Your task to perform on an android device: check storage Image 0: 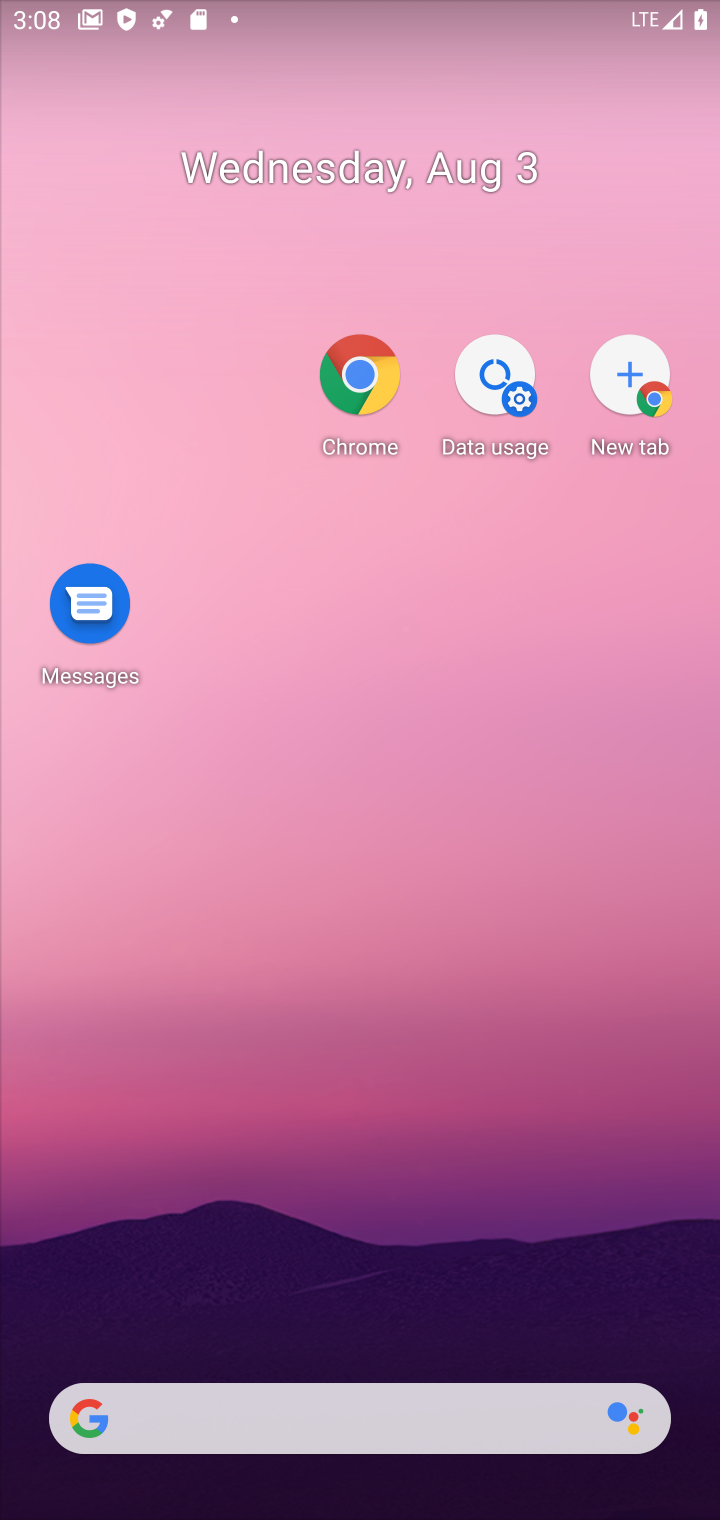
Step 0: click (80, 96)
Your task to perform on an android device: check storage Image 1: 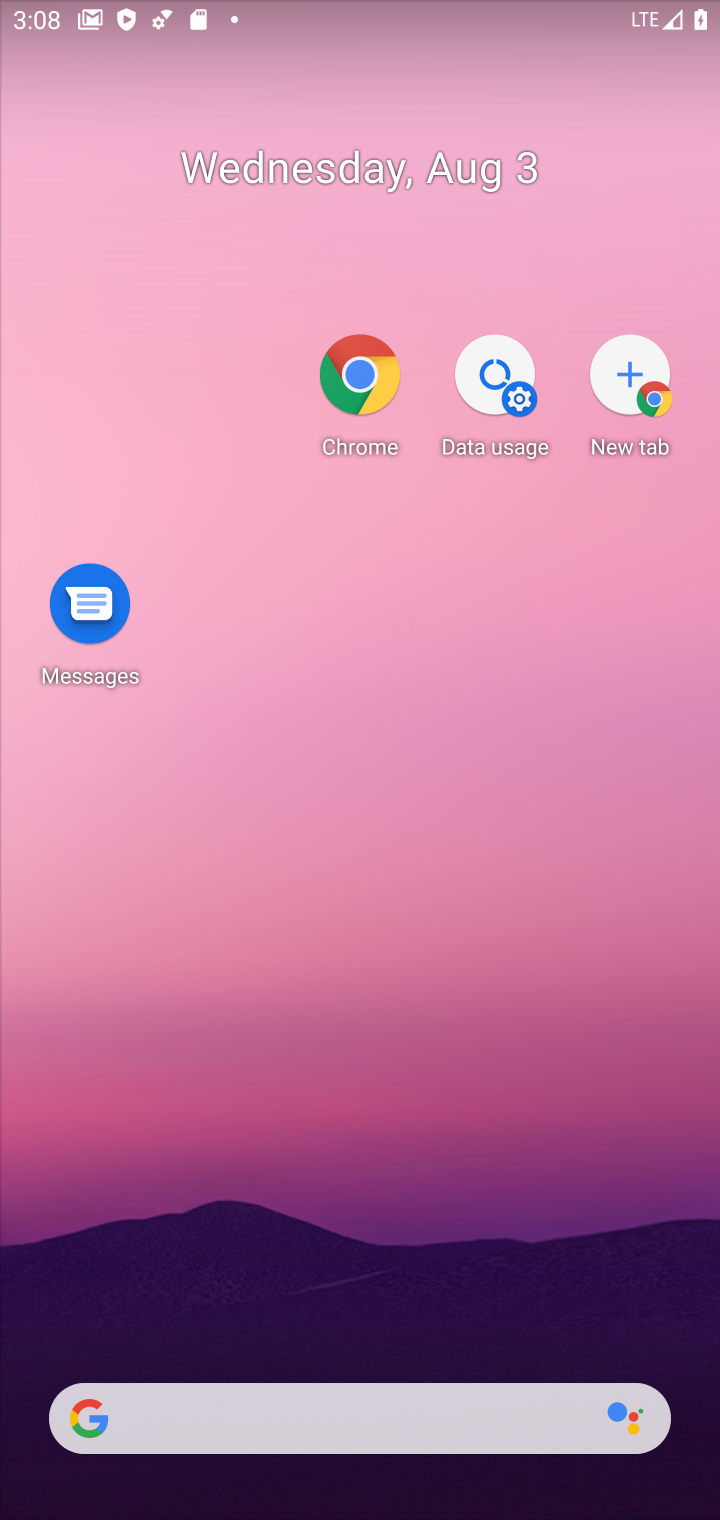
Step 1: click (52, 60)
Your task to perform on an android device: check storage Image 2: 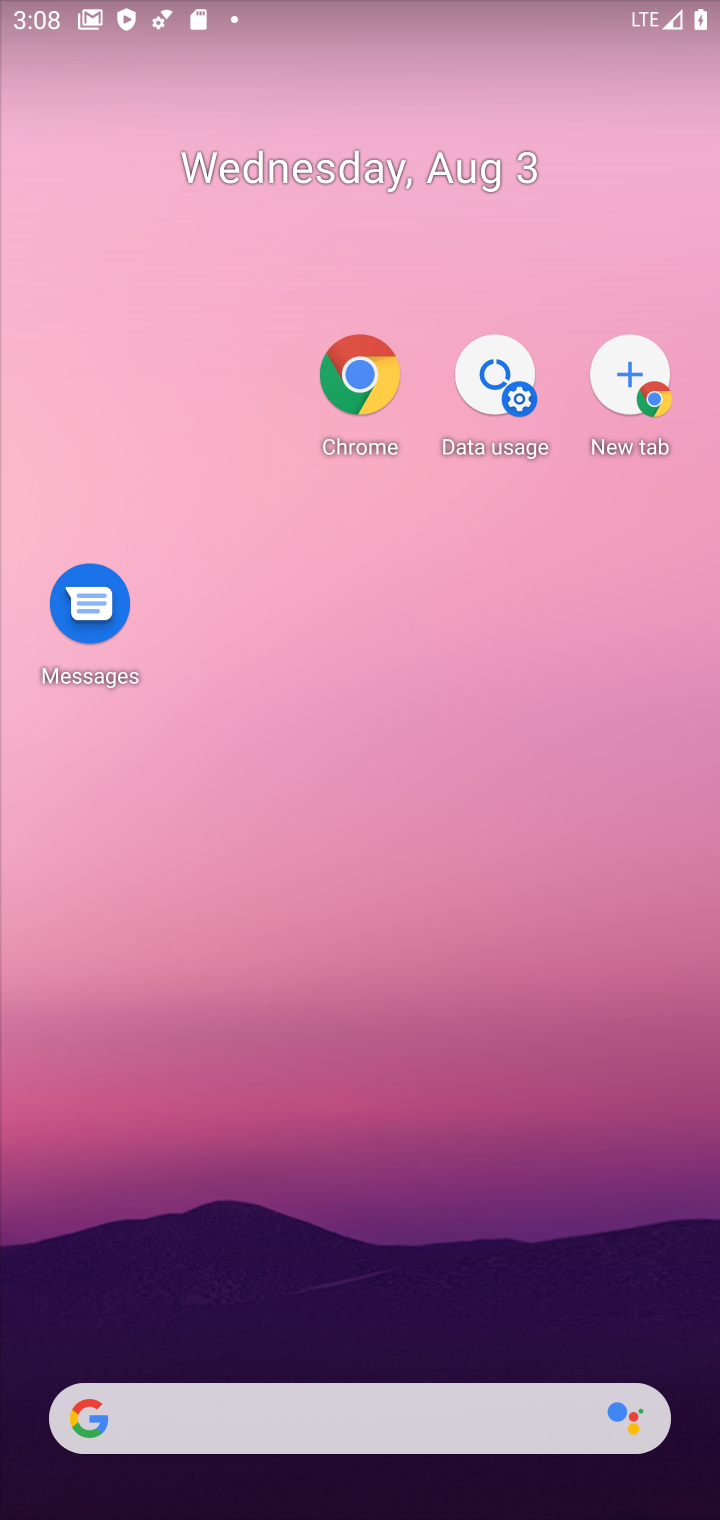
Step 2: press back button
Your task to perform on an android device: check storage Image 3: 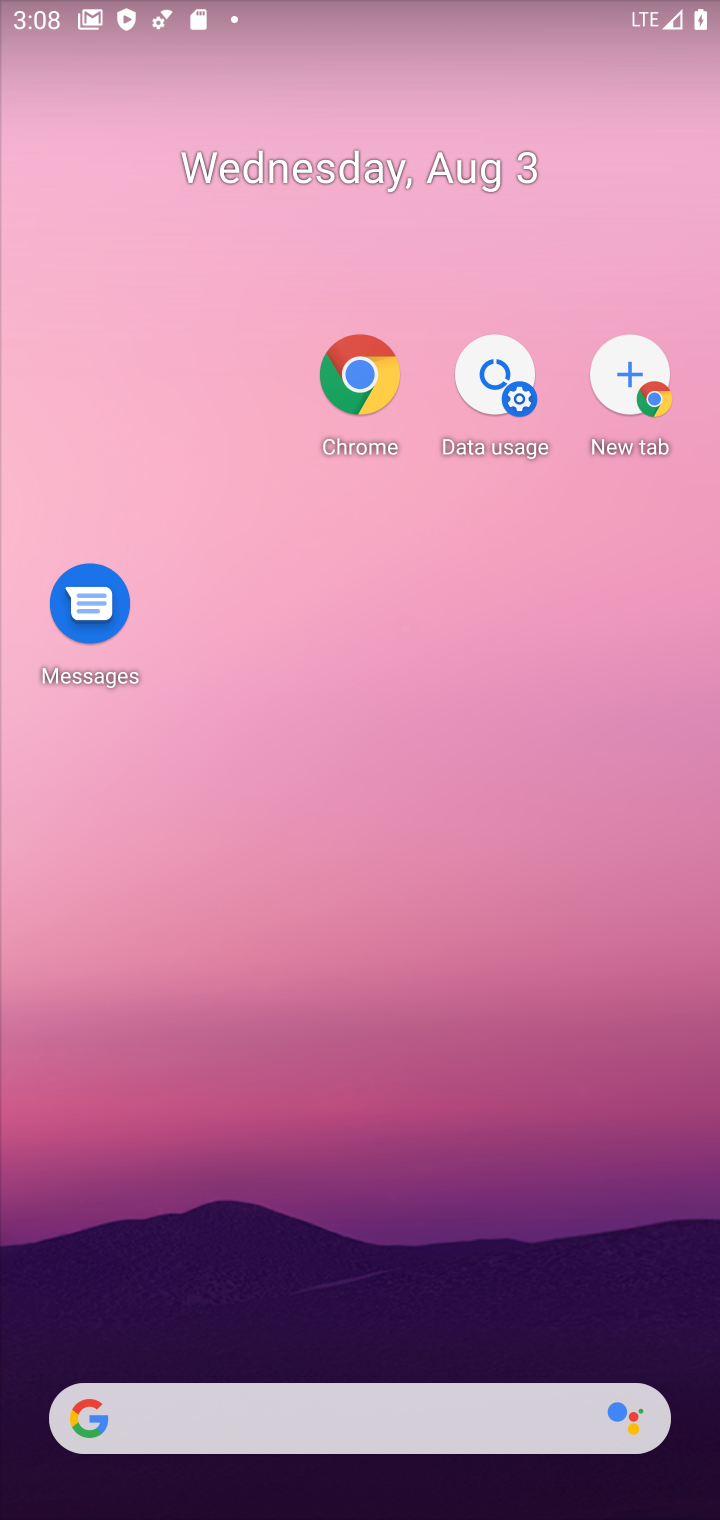
Step 3: drag from (414, 1150) to (181, 209)
Your task to perform on an android device: check storage Image 4: 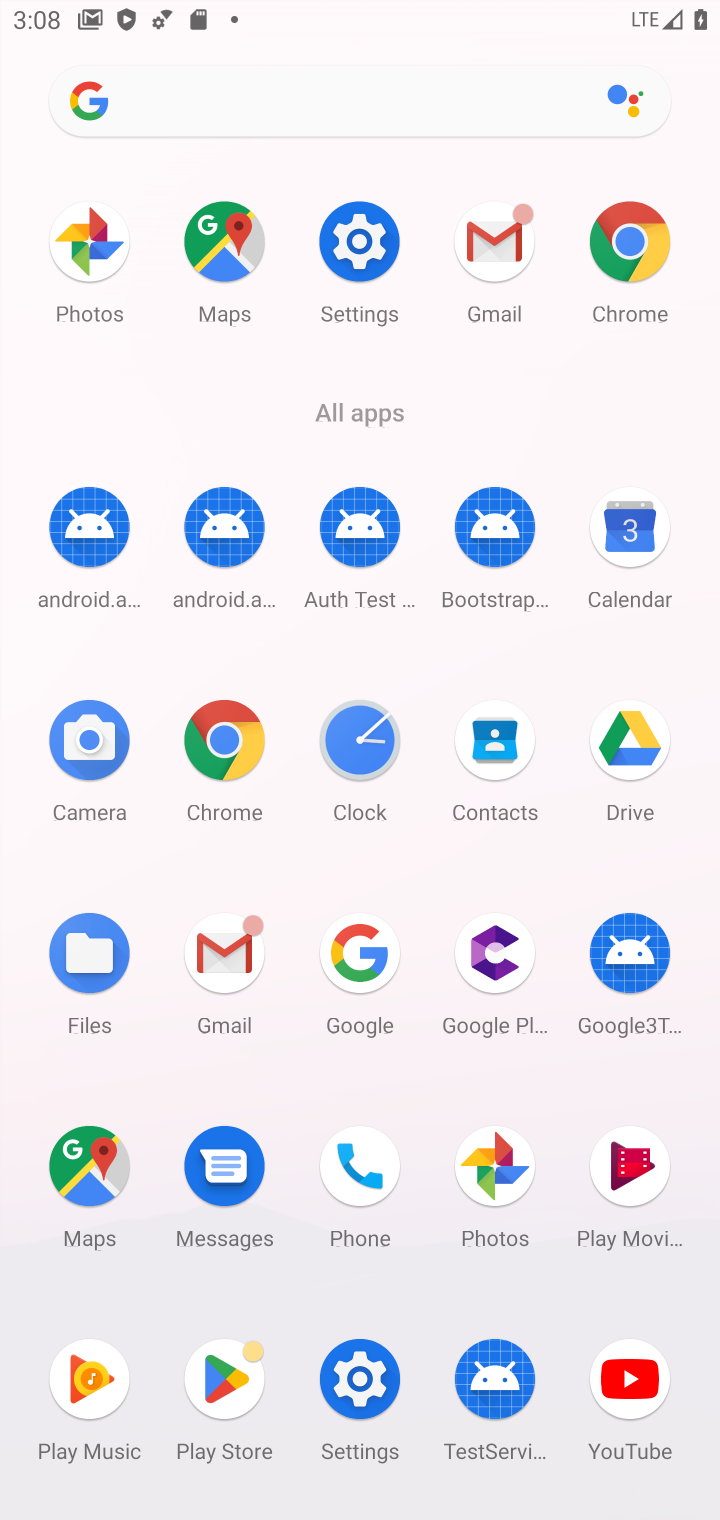
Step 4: click (91, 1137)
Your task to perform on an android device: check storage Image 5: 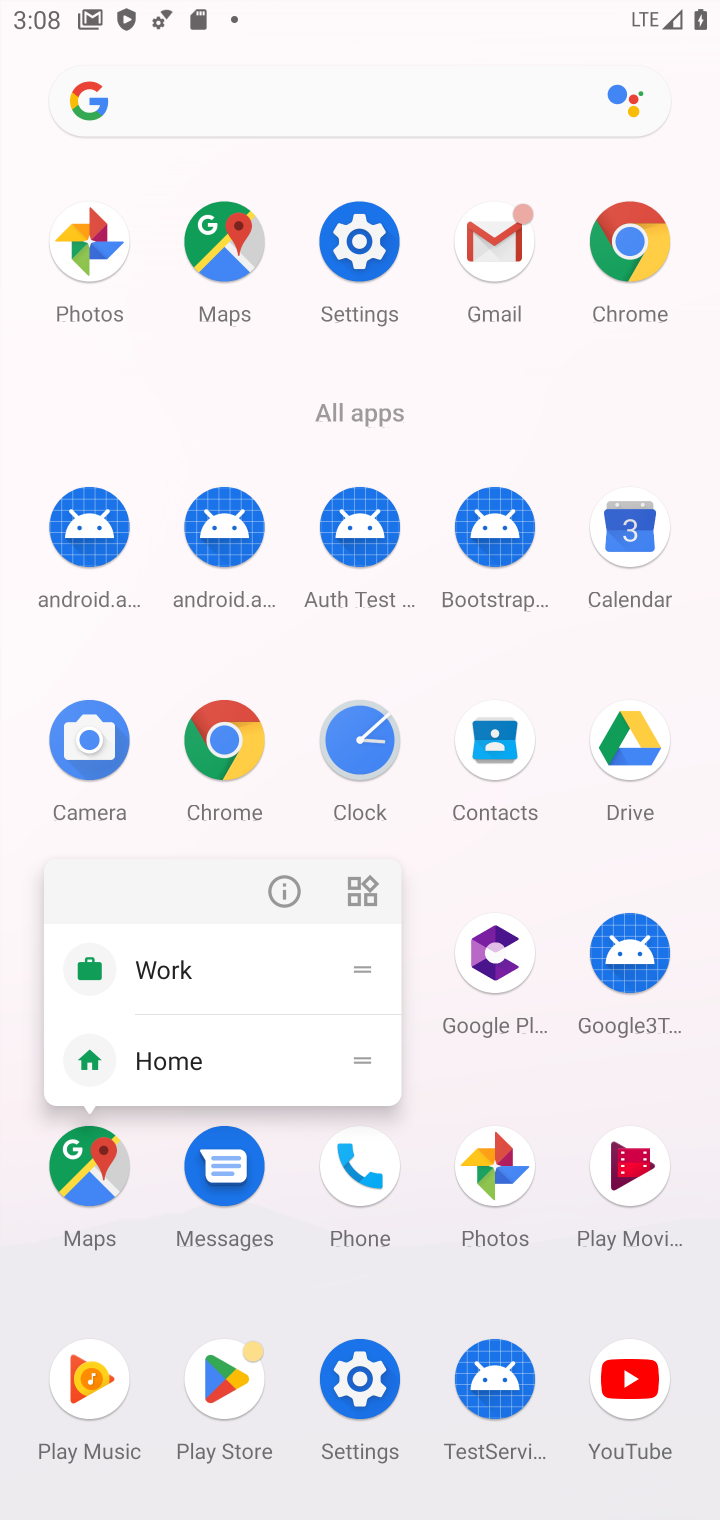
Step 5: click (97, 1150)
Your task to perform on an android device: check storage Image 6: 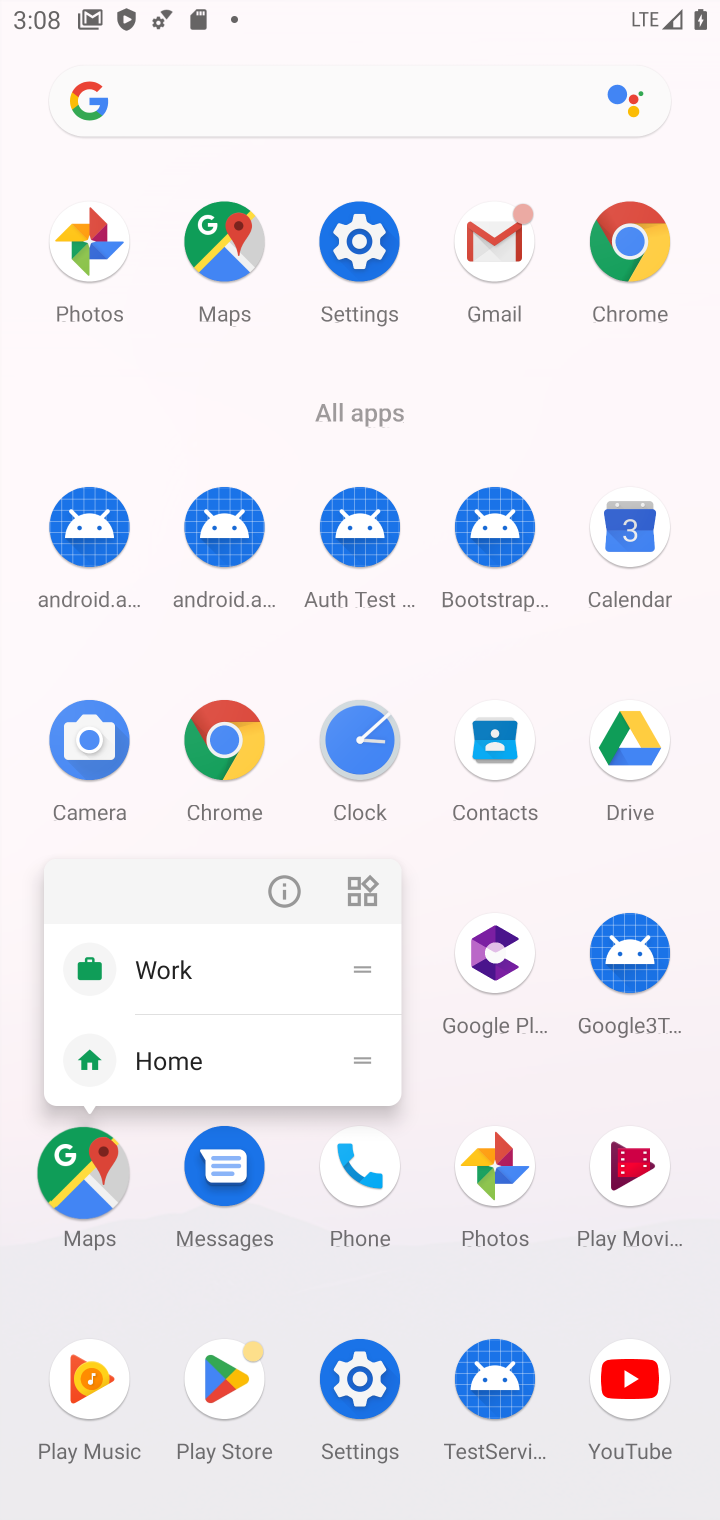
Step 6: click (93, 1161)
Your task to perform on an android device: check storage Image 7: 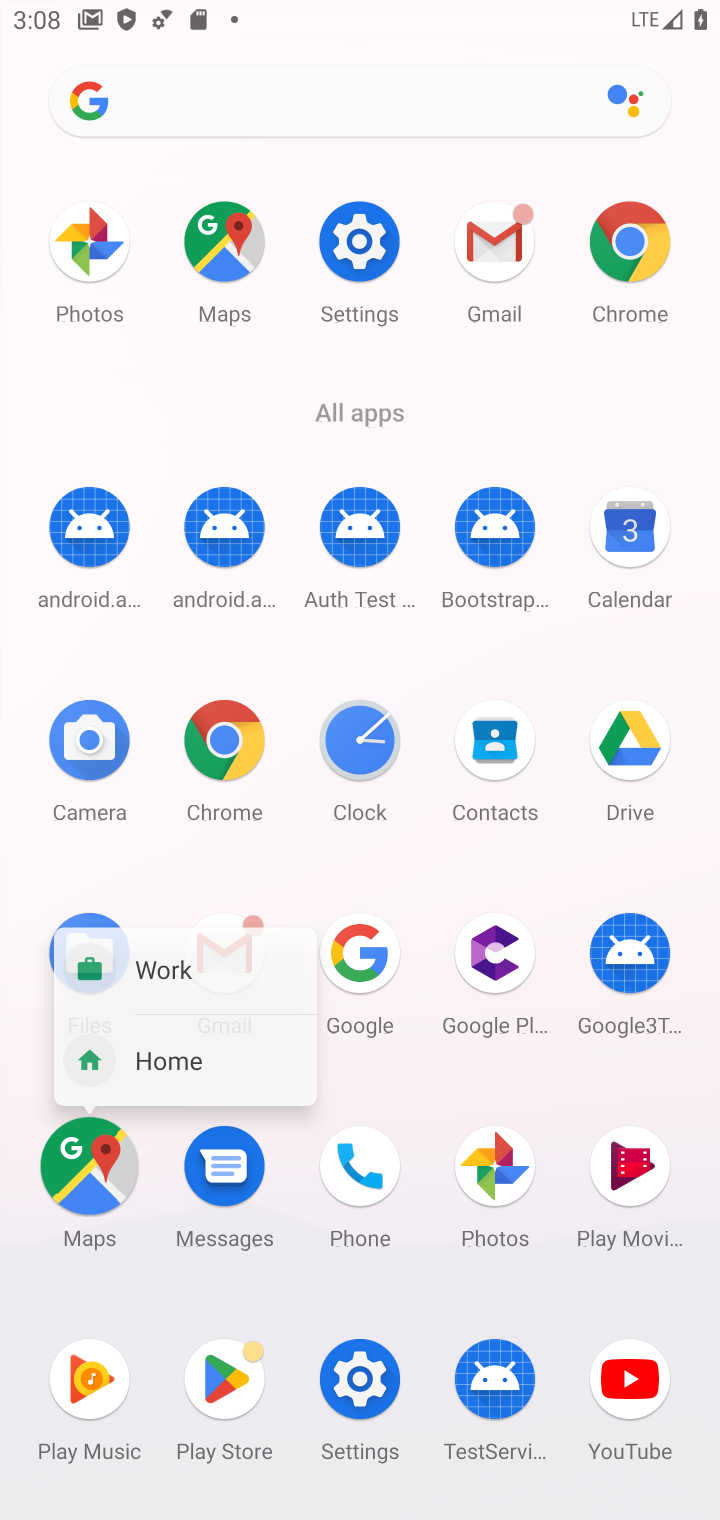
Step 7: click (108, 1142)
Your task to perform on an android device: check storage Image 8: 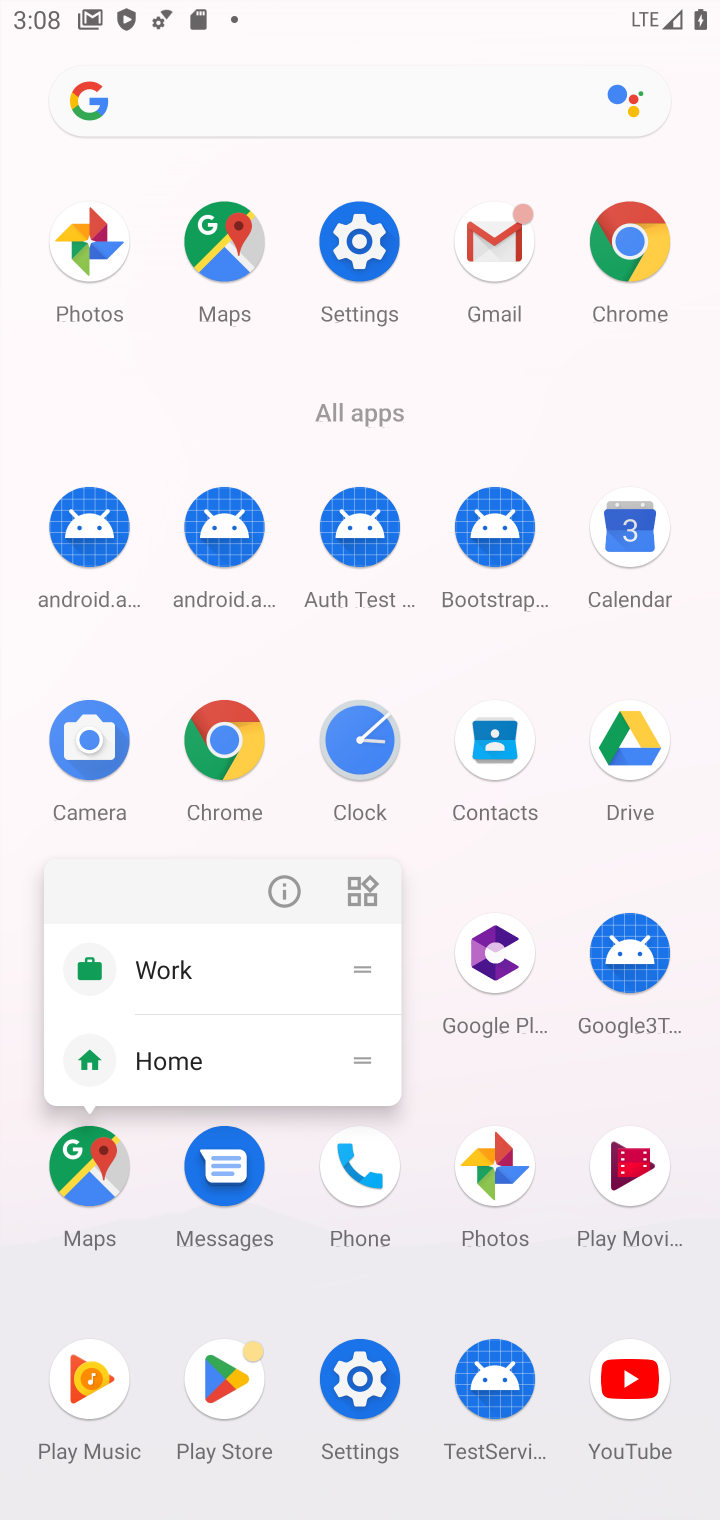
Step 8: click (93, 1146)
Your task to perform on an android device: check storage Image 9: 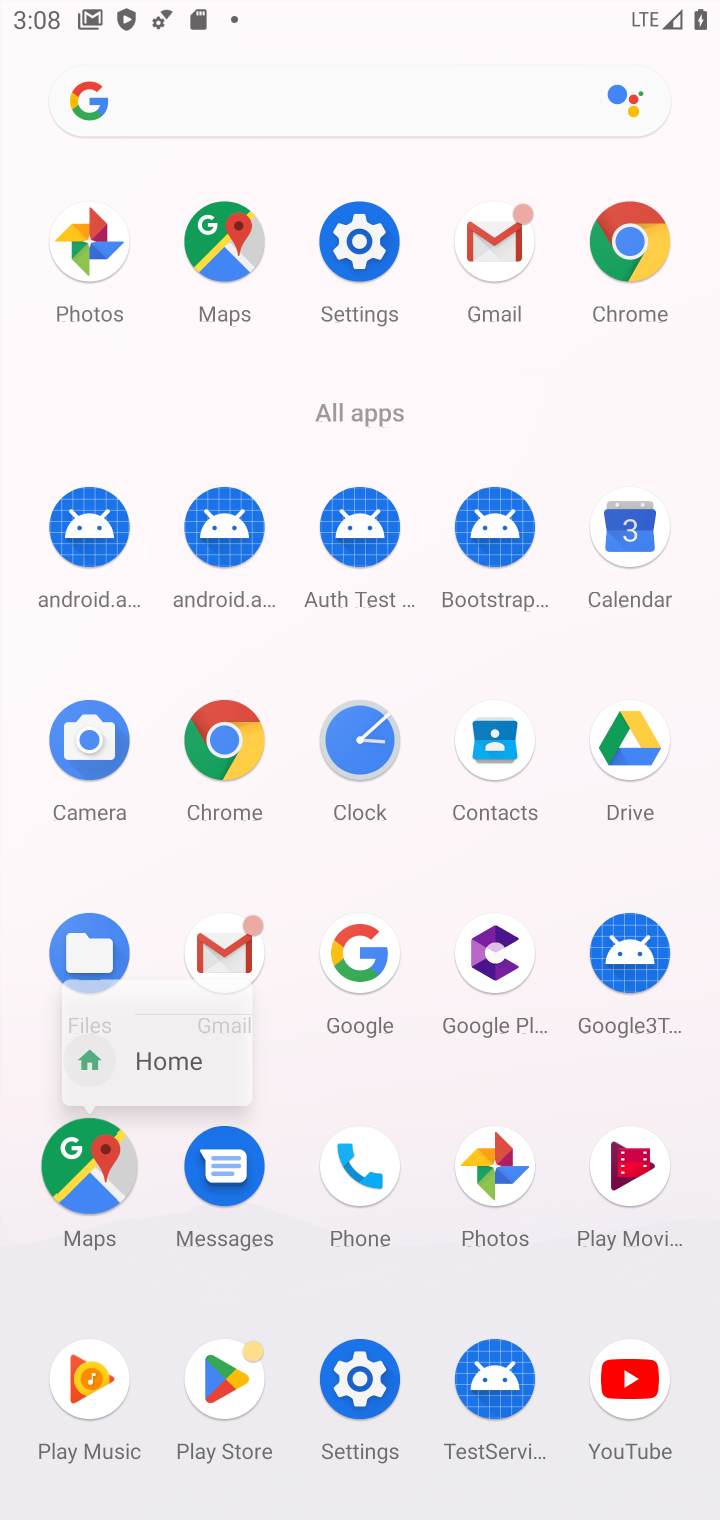
Step 9: click (95, 1144)
Your task to perform on an android device: check storage Image 10: 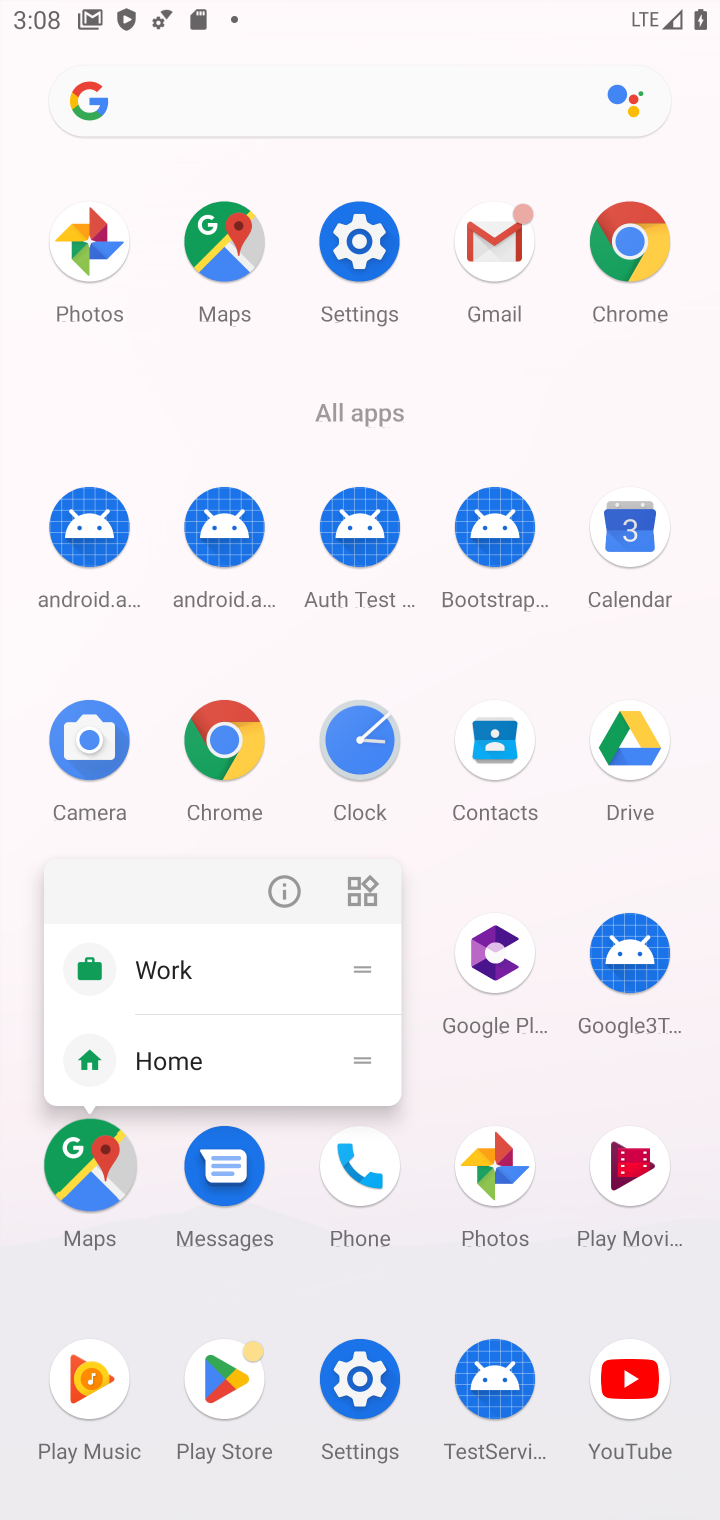
Step 10: click (102, 1185)
Your task to perform on an android device: check storage Image 11: 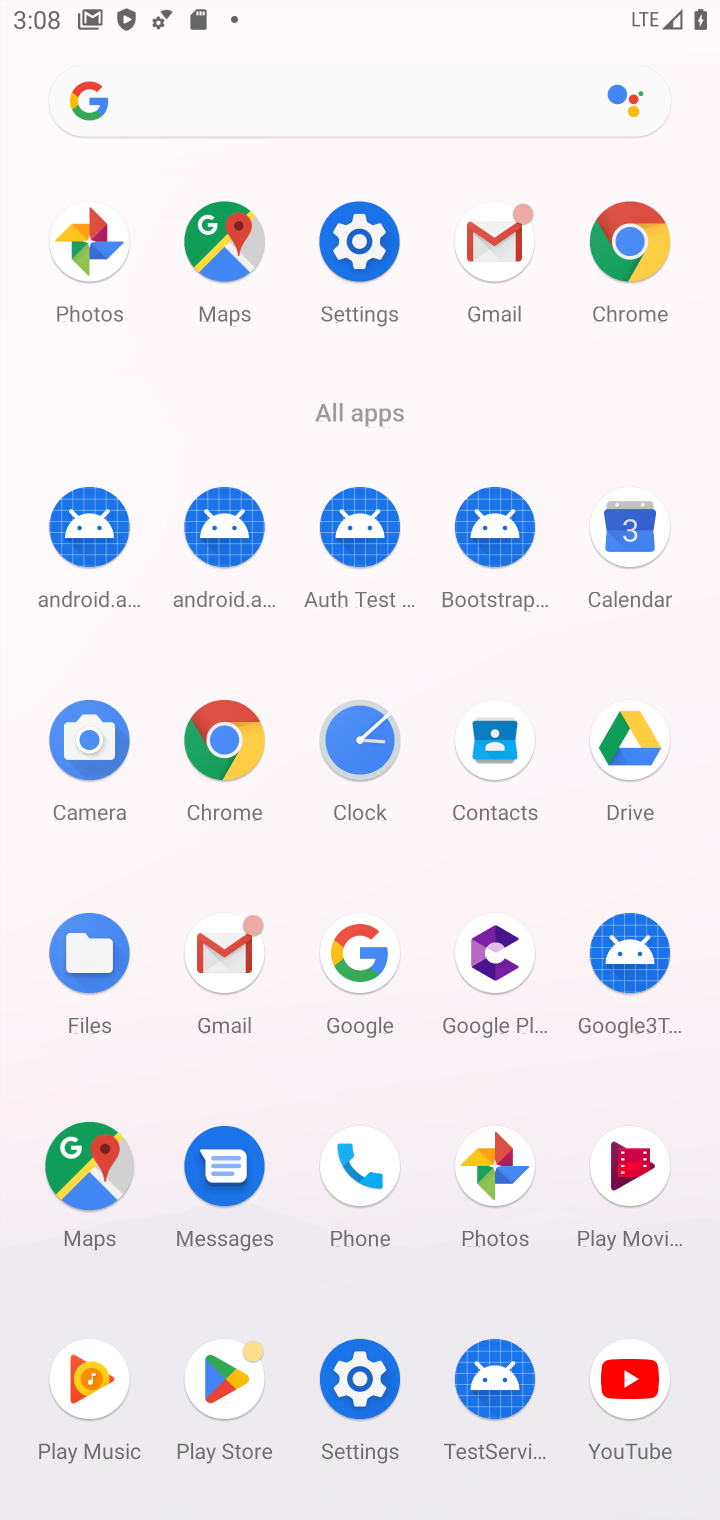
Step 11: click (90, 1166)
Your task to perform on an android device: check storage Image 12: 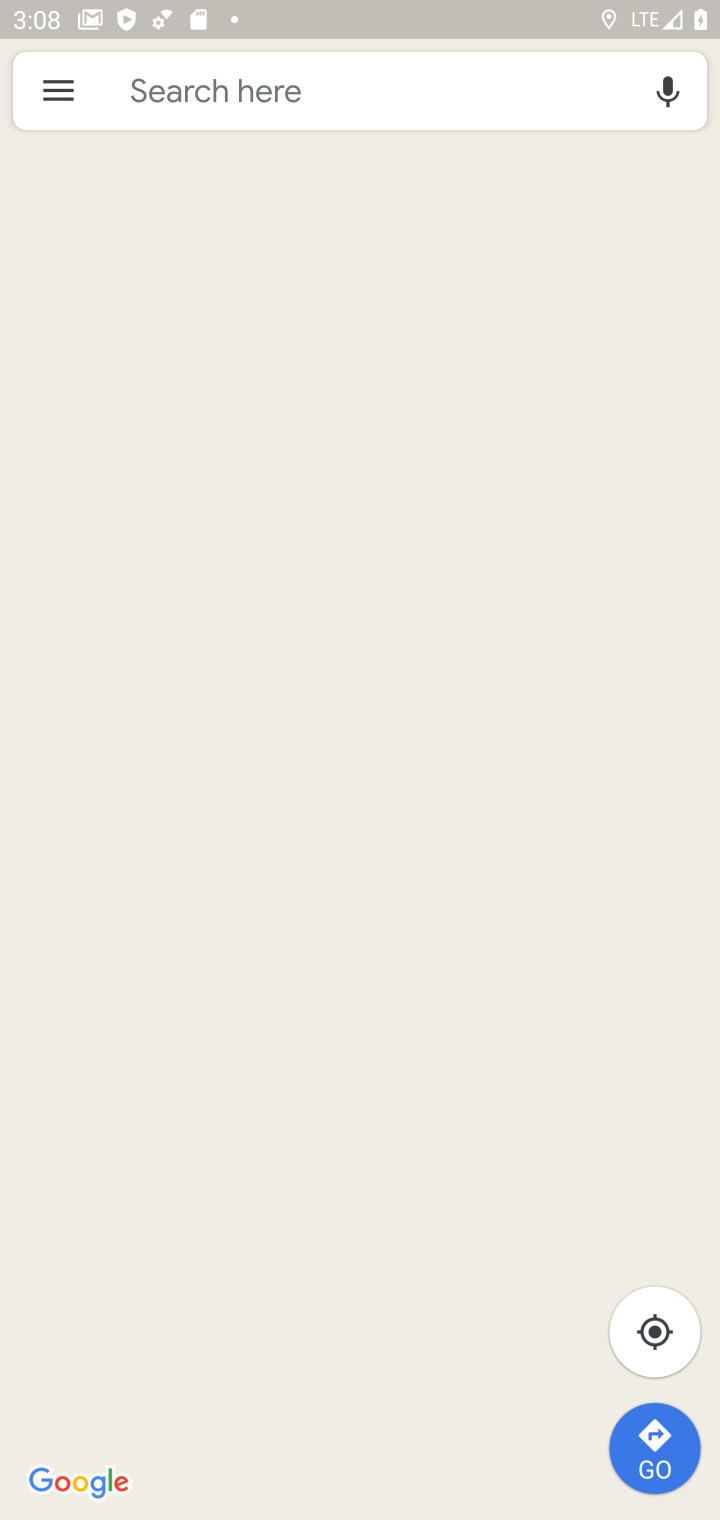
Step 12: task complete